Your task to perform on an android device: turn on airplane mode Image 0: 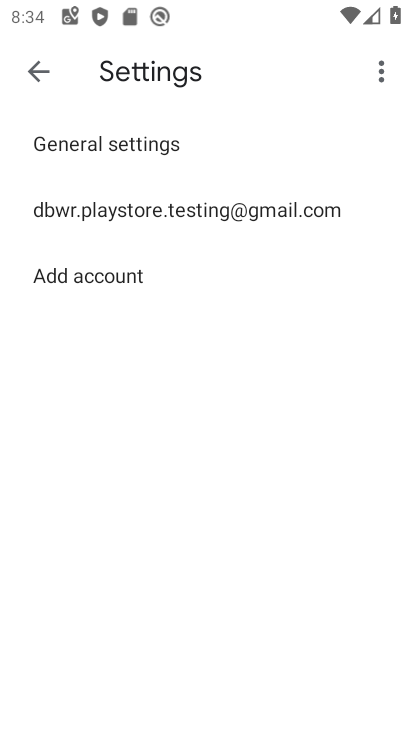
Step 0: click (40, 73)
Your task to perform on an android device: turn on airplane mode Image 1: 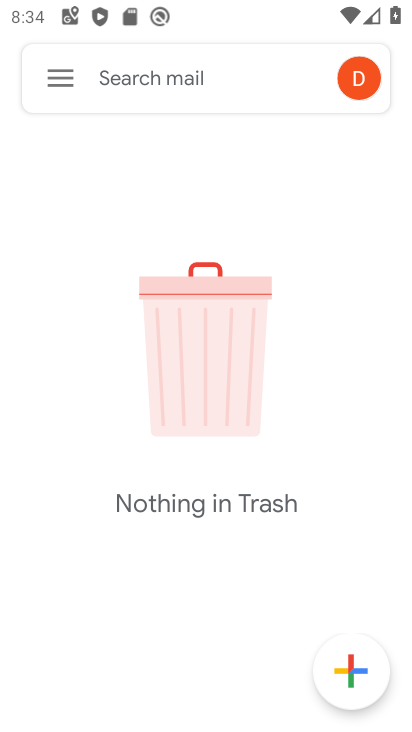
Step 1: press home button
Your task to perform on an android device: turn on airplane mode Image 2: 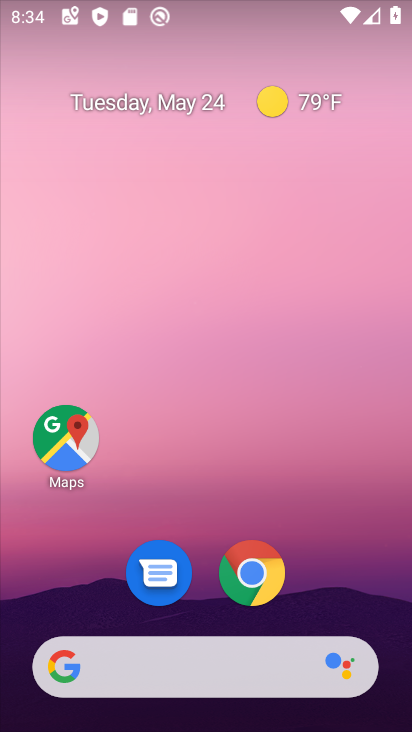
Step 2: drag from (328, 716) to (122, 172)
Your task to perform on an android device: turn on airplane mode Image 3: 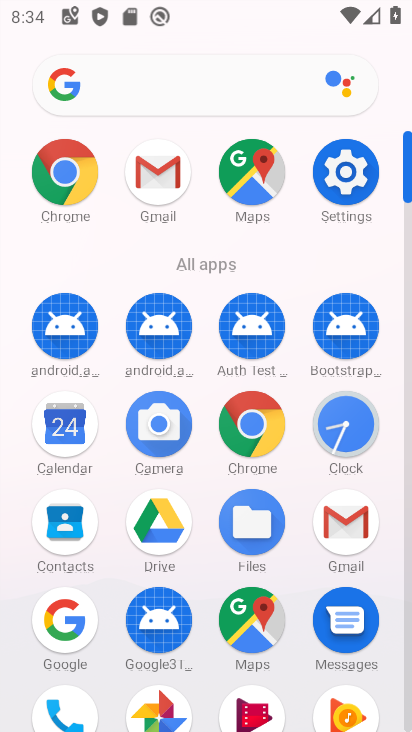
Step 3: click (340, 175)
Your task to perform on an android device: turn on airplane mode Image 4: 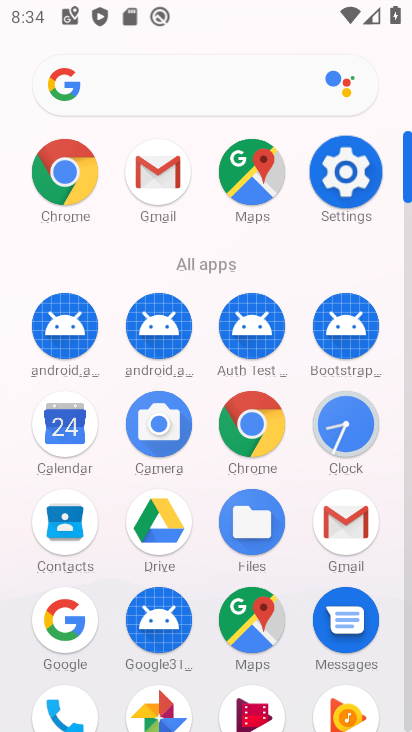
Step 4: click (344, 173)
Your task to perform on an android device: turn on airplane mode Image 5: 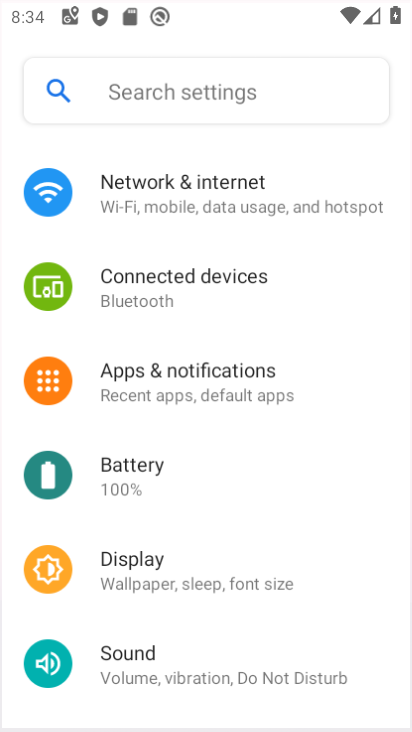
Step 5: click (344, 171)
Your task to perform on an android device: turn on airplane mode Image 6: 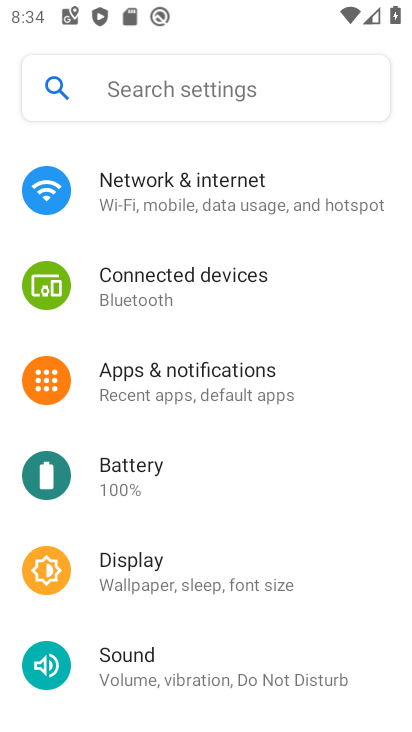
Step 6: click (344, 171)
Your task to perform on an android device: turn on airplane mode Image 7: 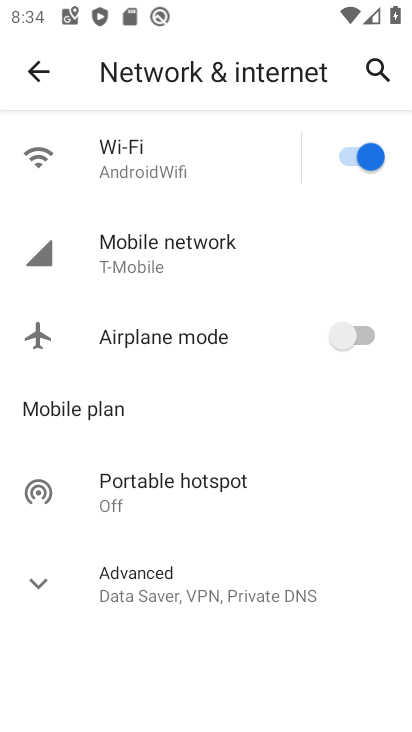
Step 7: click (352, 337)
Your task to perform on an android device: turn on airplane mode Image 8: 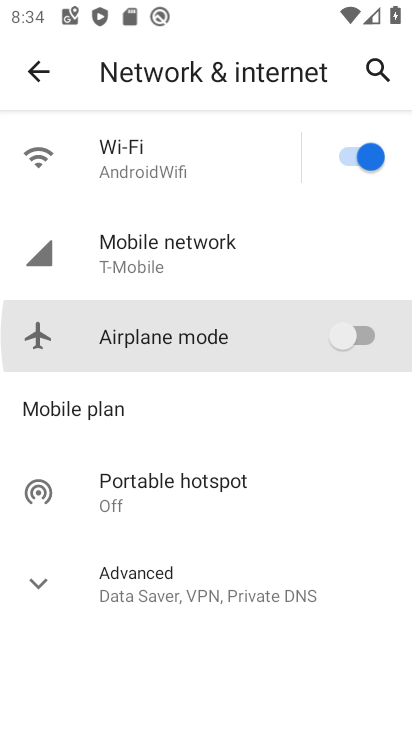
Step 8: click (353, 336)
Your task to perform on an android device: turn on airplane mode Image 9: 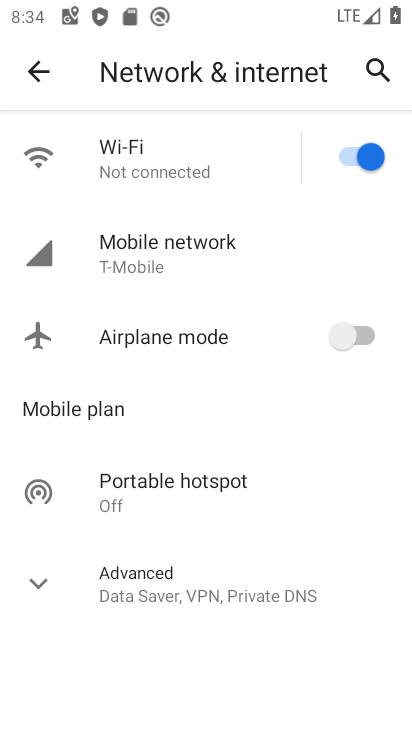
Step 9: click (345, 338)
Your task to perform on an android device: turn on airplane mode Image 10: 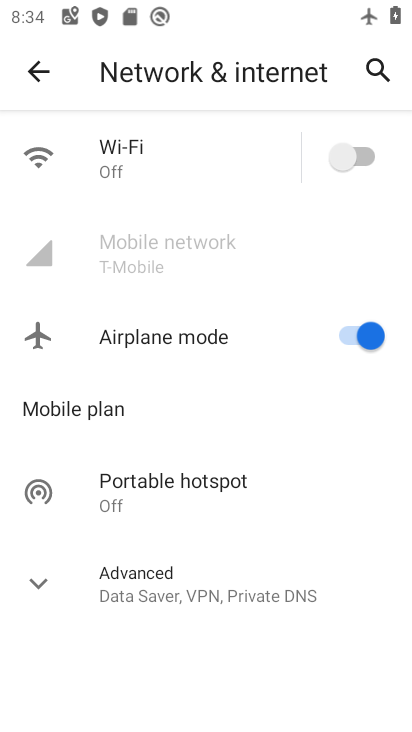
Step 10: task complete